Your task to perform on an android device: Go to ESPN.com Image 0: 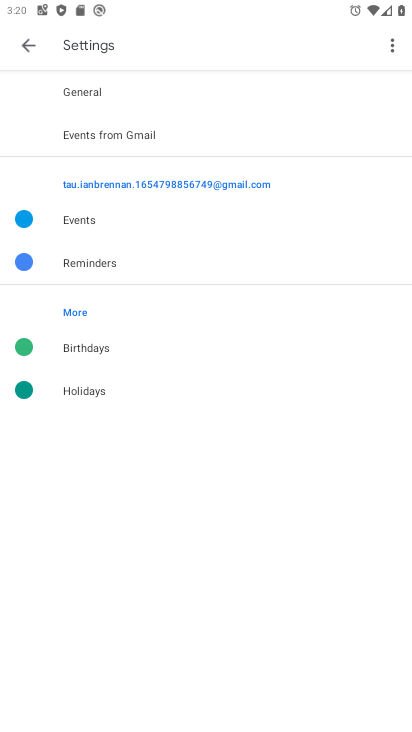
Step 0: press home button
Your task to perform on an android device: Go to ESPN.com Image 1: 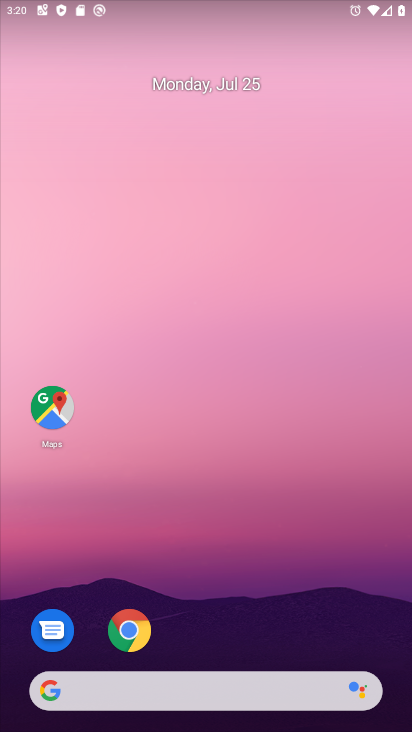
Step 1: drag from (213, 678) to (197, 218)
Your task to perform on an android device: Go to ESPN.com Image 2: 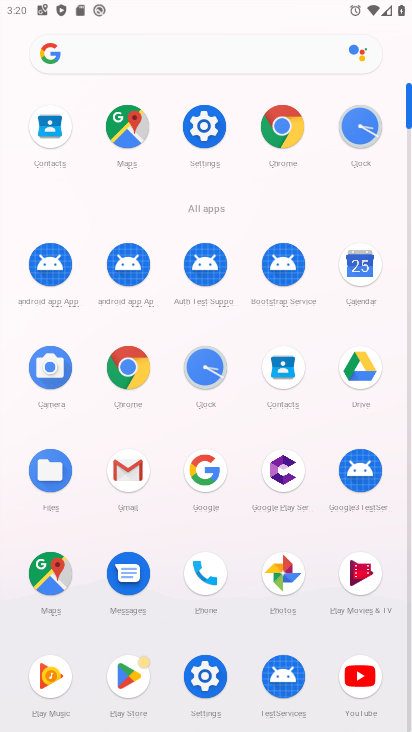
Step 2: click (282, 139)
Your task to perform on an android device: Go to ESPN.com Image 3: 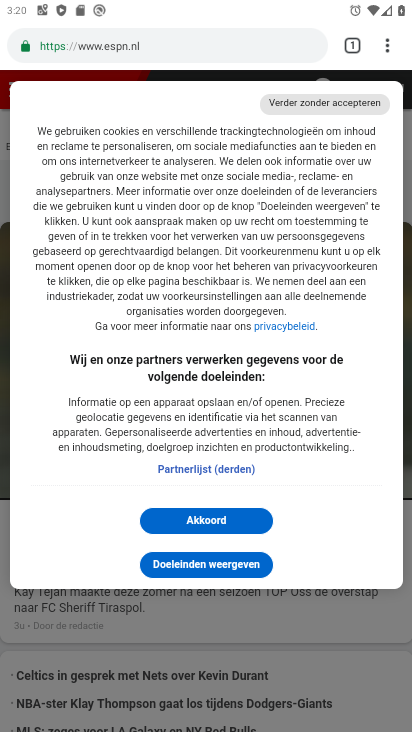
Step 3: task complete